Your task to perform on an android device: Play the new Katy Perry video on YouTube Image 0: 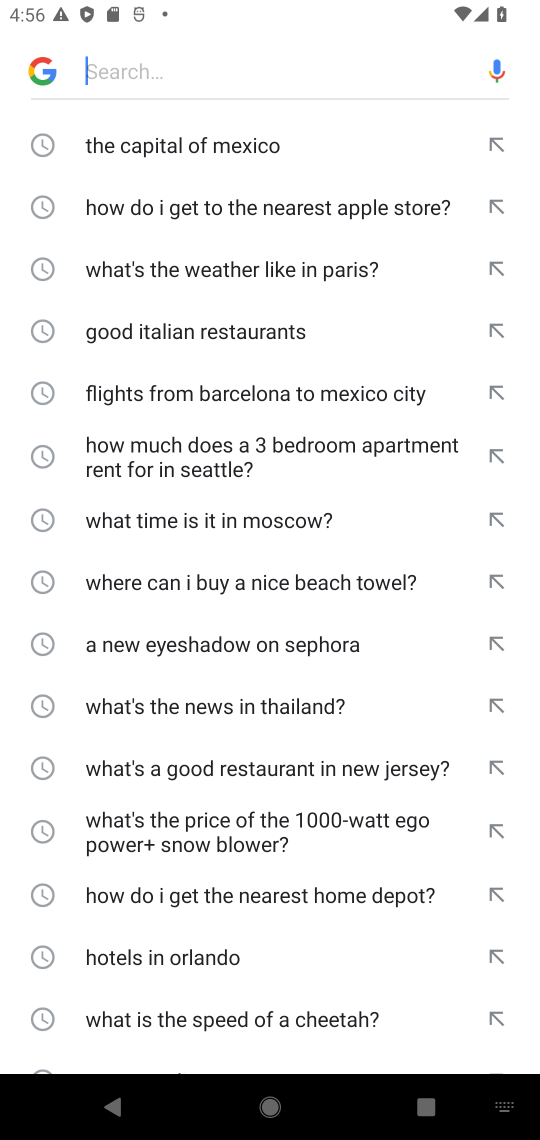
Step 0: press home button
Your task to perform on an android device: Play the new Katy Perry video on YouTube Image 1: 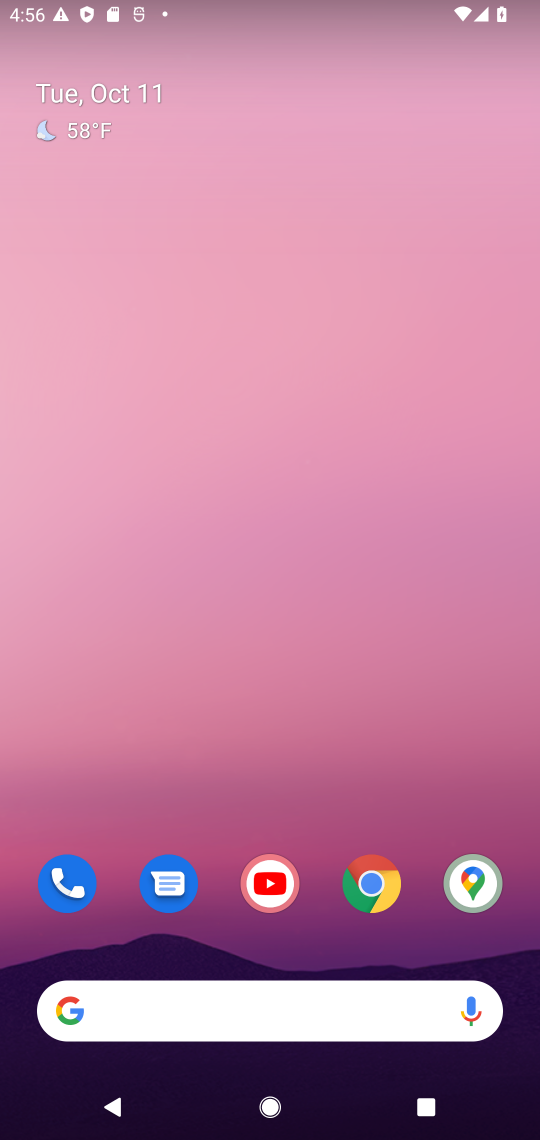
Step 1: drag from (307, 830) to (339, 103)
Your task to perform on an android device: Play the new Katy Perry video on YouTube Image 2: 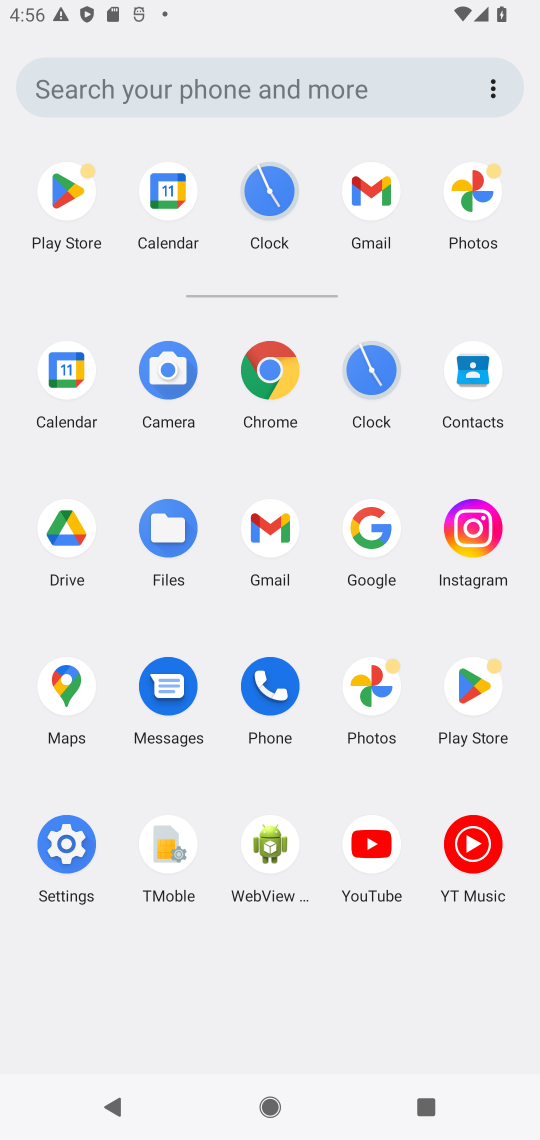
Step 2: click (382, 837)
Your task to perform on an android device: Play the new Katy Perry video on YouTube Image 3: 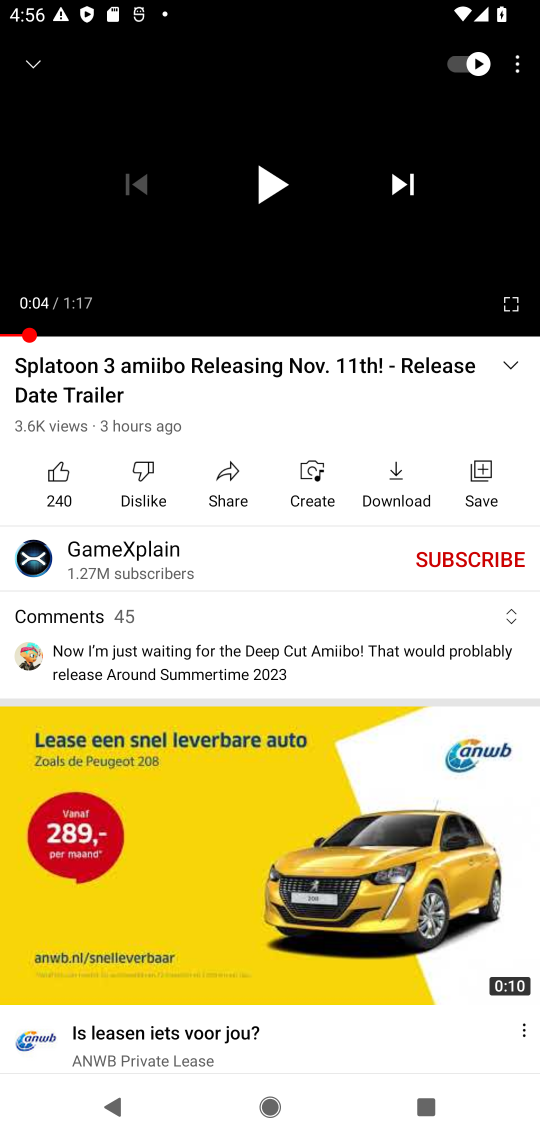
Step 3: drag from (361, 222) to (256, 910)
Your task to perform on an android device: Play the new Katy Perry video on YouTube Image 4: 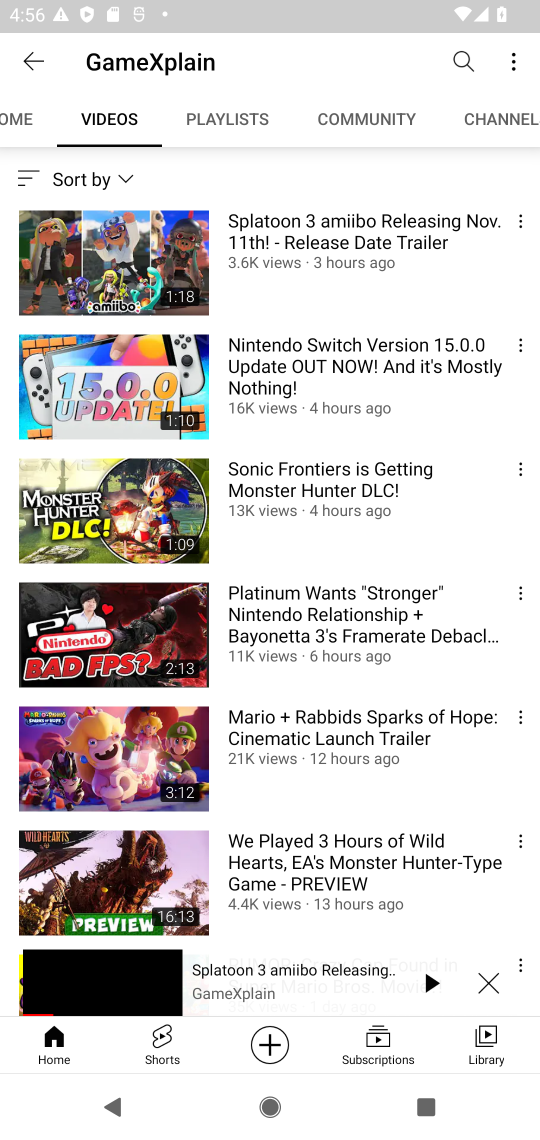
Step 4: click (299, 58)
Your task to perform on an android device: Play the new Katy Perry video on YouTube Image 5: 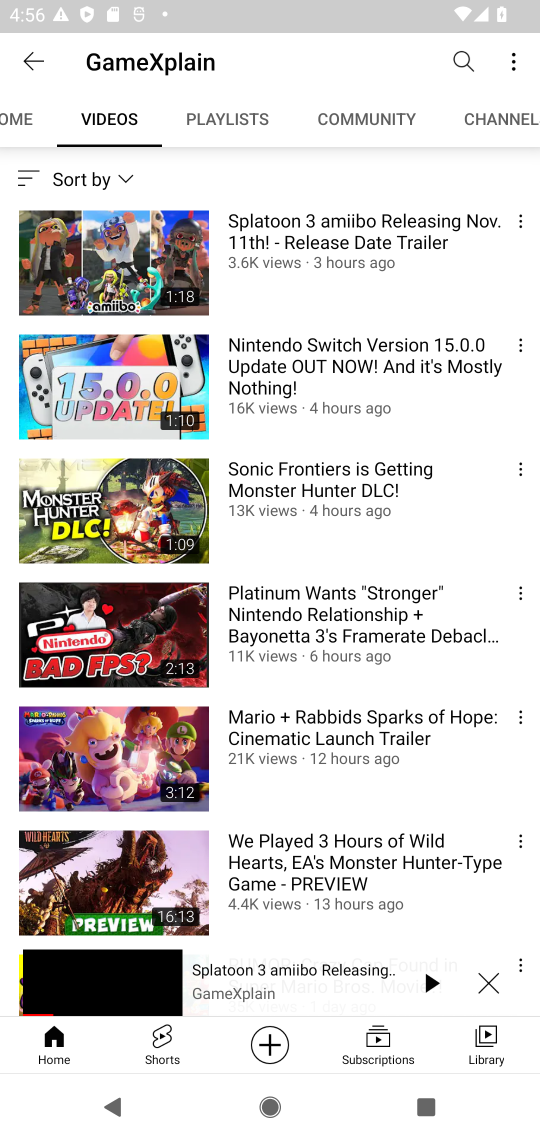
Step 5: press back button
Your task to perform on an android device: Play the new Katy Perry video on YouTube Image 6: 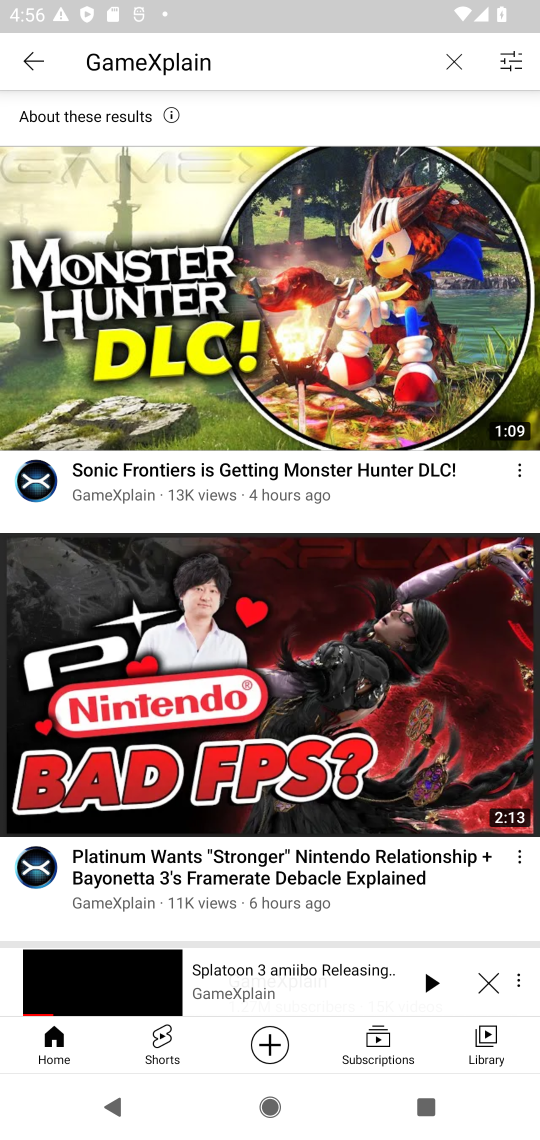
Step 6: click (452, 60)
Your task to perform on an android device: Play the new Katy Perry video on YouTube Image 7: 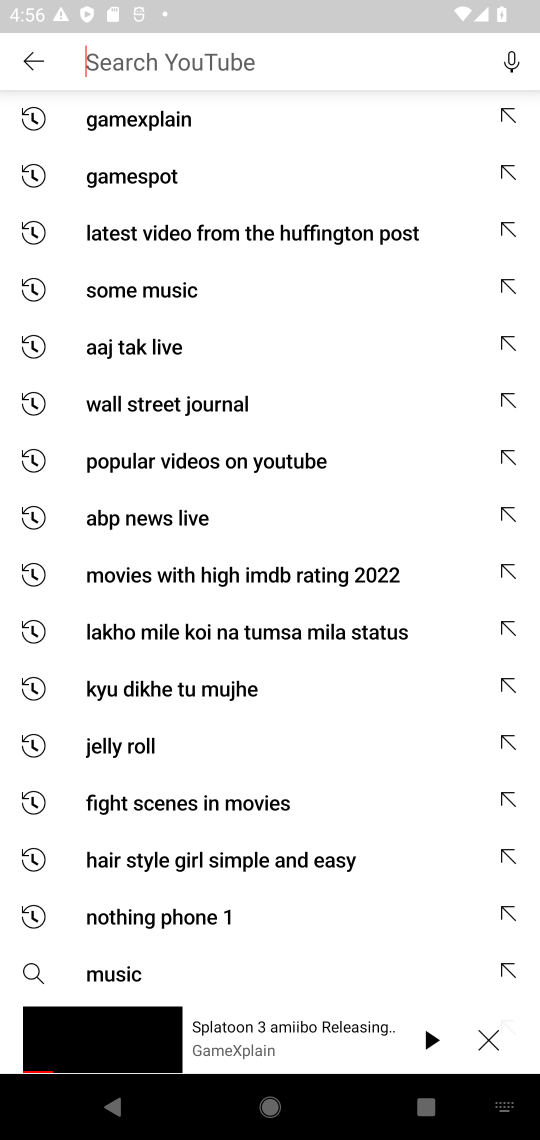
Step 7: type "Katy Perry"
Your task to perform on an android device: Play the new Katy Perry video on YouTube Image 8: 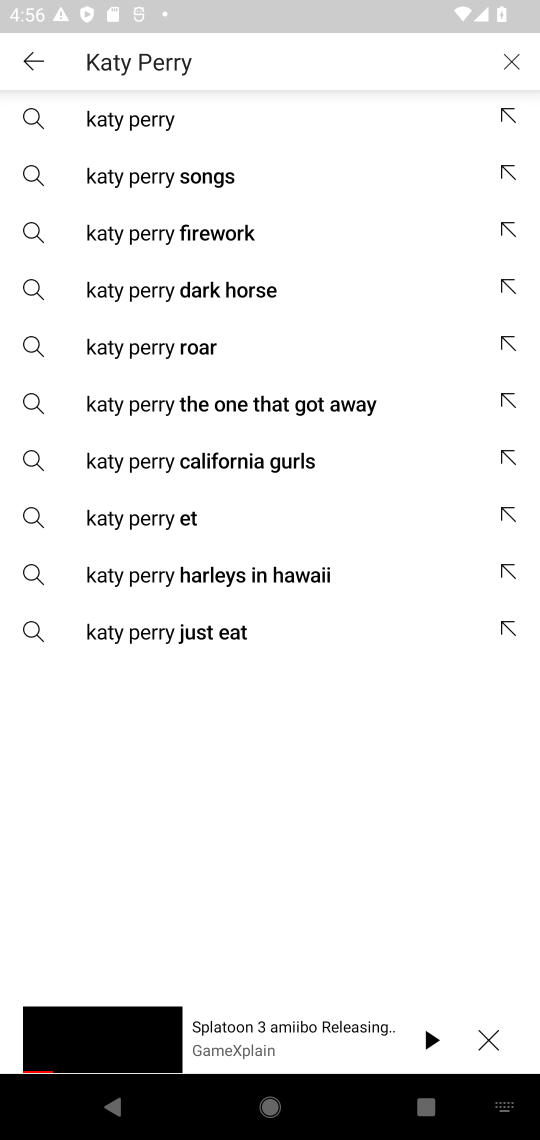
Step 8: press enter
Your task to perform on an android device: Play the new Katy Perry video on YouTube Image 9: 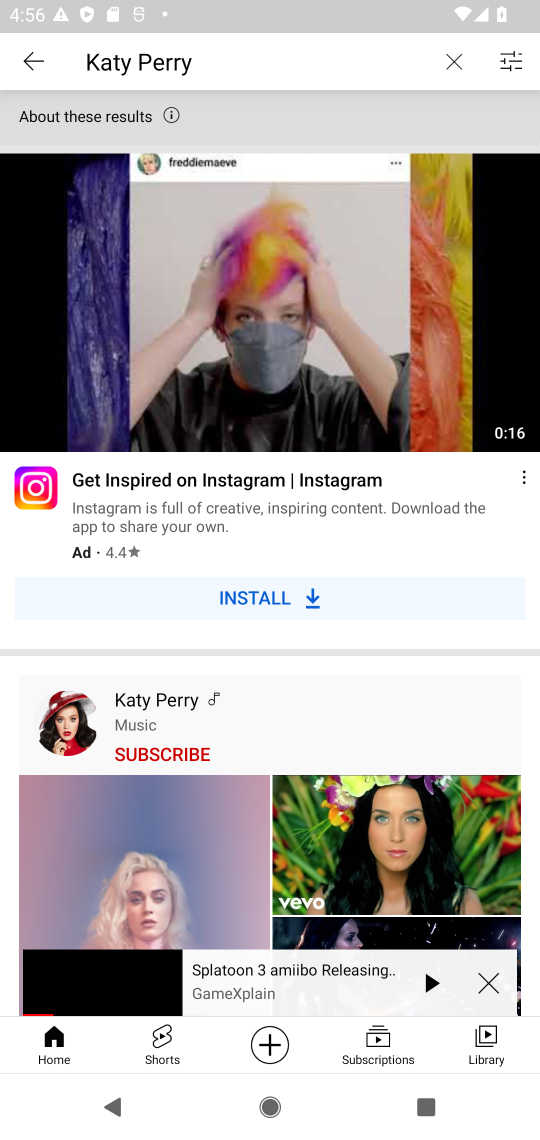
Step 9: drag from (168, 784) to (207, 167)
Your task to perform on an android device: Play the new Katy Perry video on YouTube Image 10: 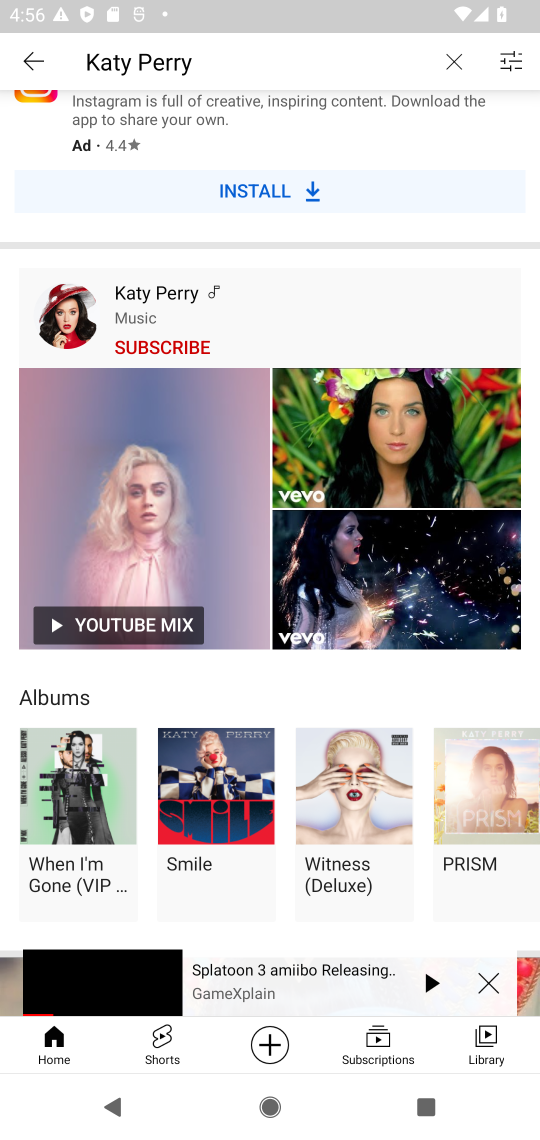
Step 10: drag from (257, 677) to (204, 396)
Your task to perform on an android device: Play the new Katy Perry video on YouTube Image 11: 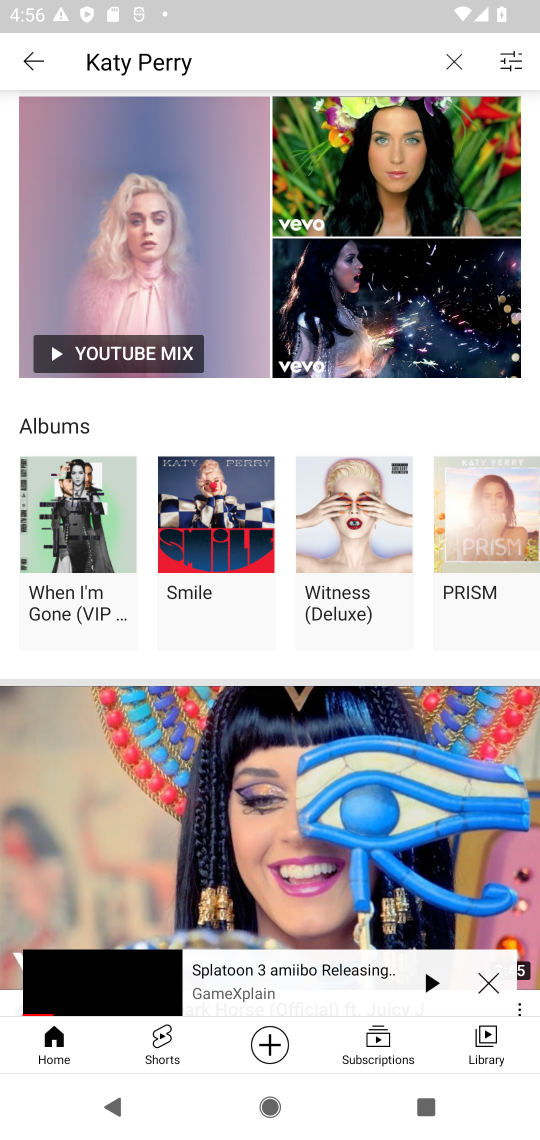
Step 11: drag from (196, 344) to (218, 578)
Your task to perform on an android device: Play the new Katy Perry video on YouTube Image 12: 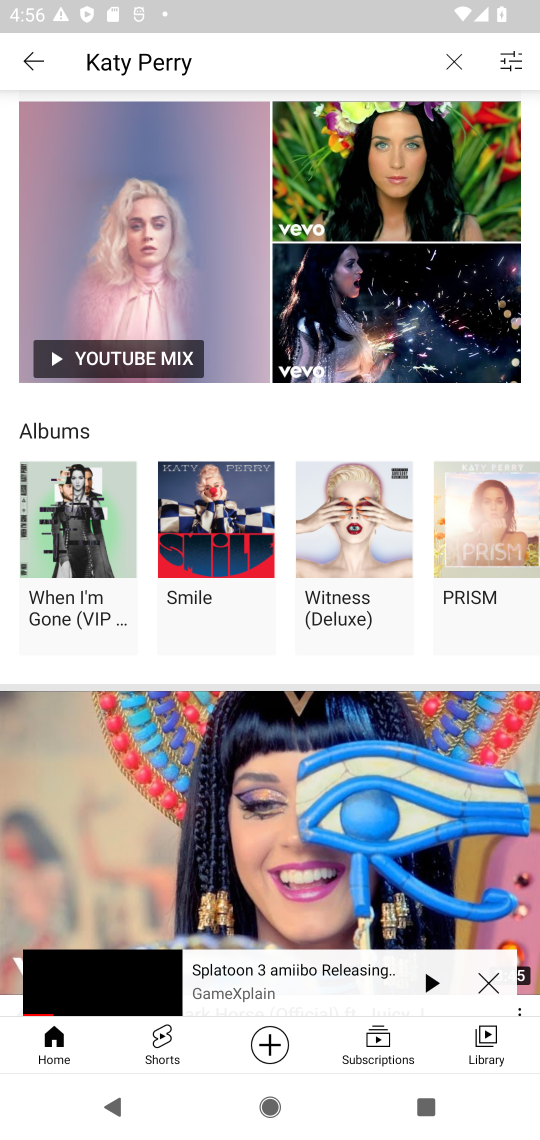
Step 12: drag from (340, 272) to (370, 682)
Your task to perform on an android device: Play the new Katy Perry video on YouTube Image 13: 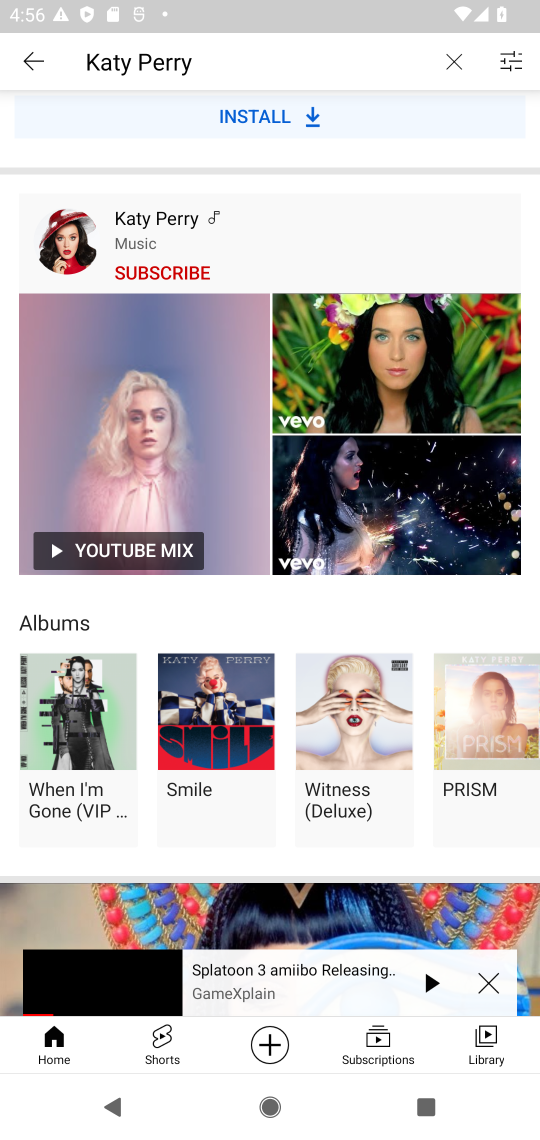
Step 13: click (164, 214)
Your task to perform on an android device: Play the new Katy Perry video on YouTube Image 14: 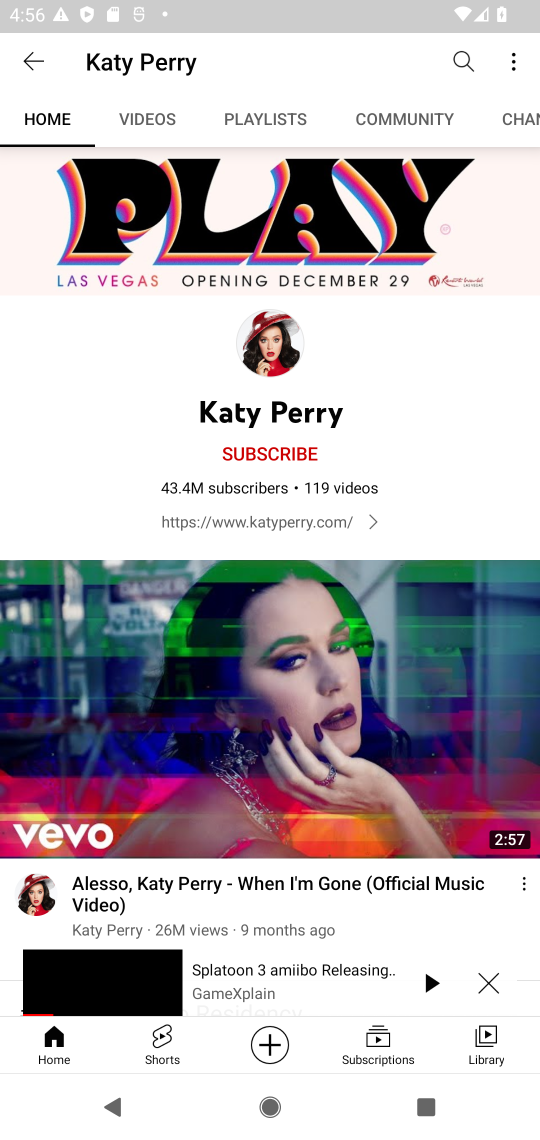
Step 14: click (106, 109)
Your task to perform on an android device: Play the new Katy Perry video on YouTube Image 15: 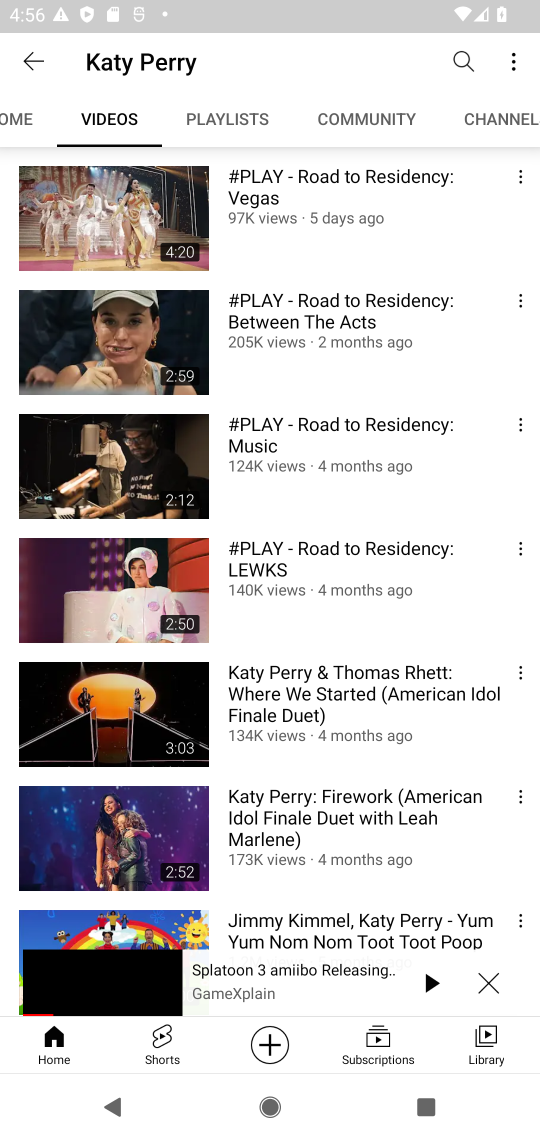
Step 15: click (70, 188)
Your task to perform on an android device: Play the new Katy Perry video on YouTube Image 16: 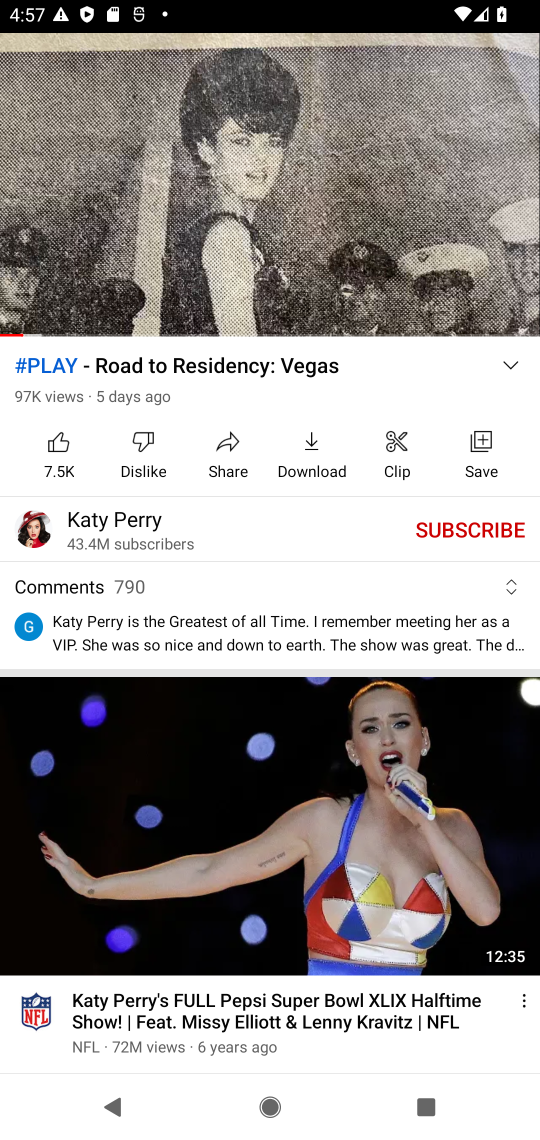
Step 16: task complete